Your task to perform on an android device: Open Chrome and go to settings Image 0: 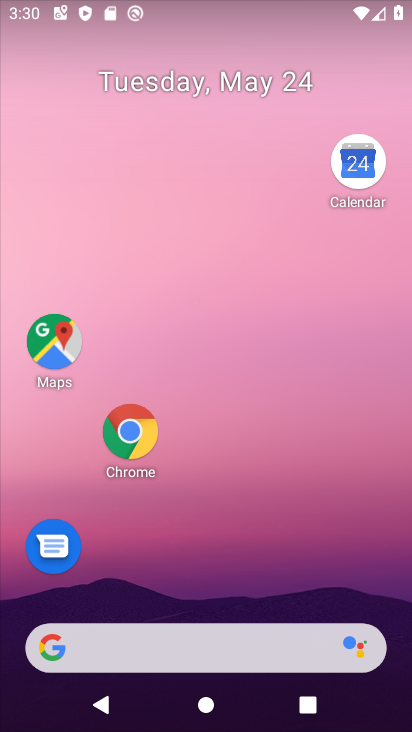
Step 0: drag from (163, 574) to (193, 152)
Your task to perform on an android device: Open Chrome and go to settings Image 1: 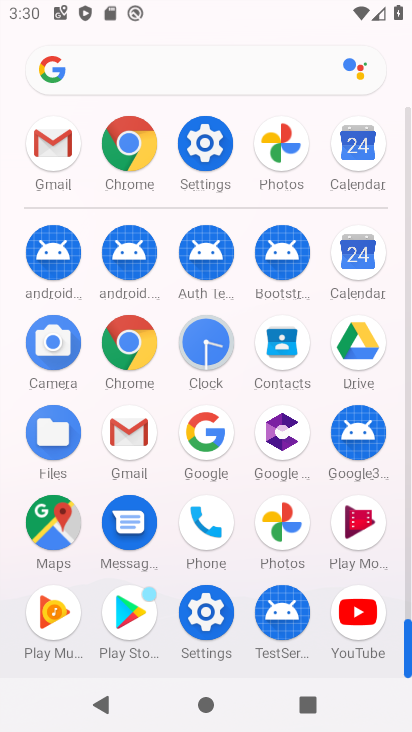
Step 1: click (207, 610)
Your task to perform on an android device: Open Chrome and go to settings Image 2: 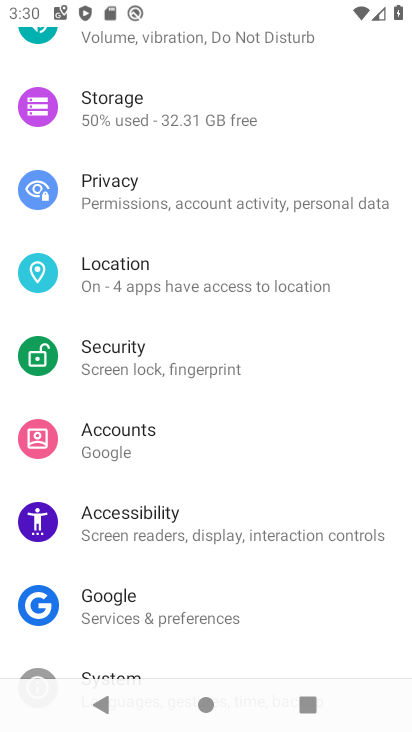
Step 2: press home button
Your task to perform on an android device: Open Chrome and go to settings Image 3: 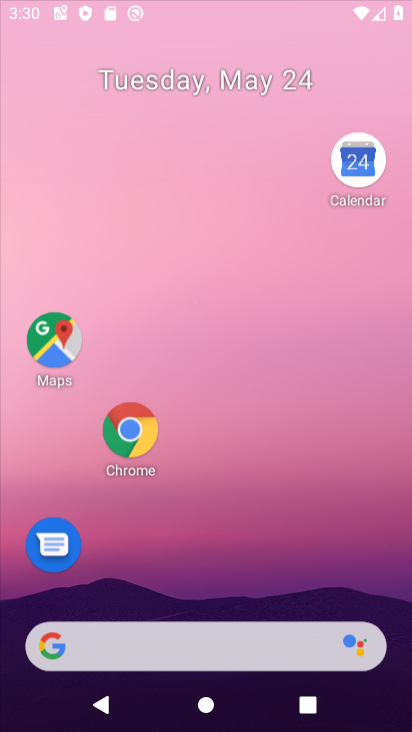
Step 3: drag from (161, 611) to (266, 194)
Your task to perform on an android device: Open Chrome and go to settings Image 4: 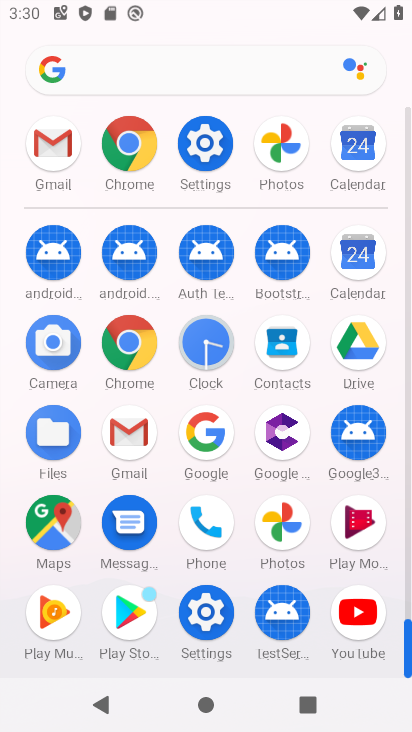
Step 4: click (131, 140)
Your task to perform on an android device: Open Chrome and go to settings Image 5: 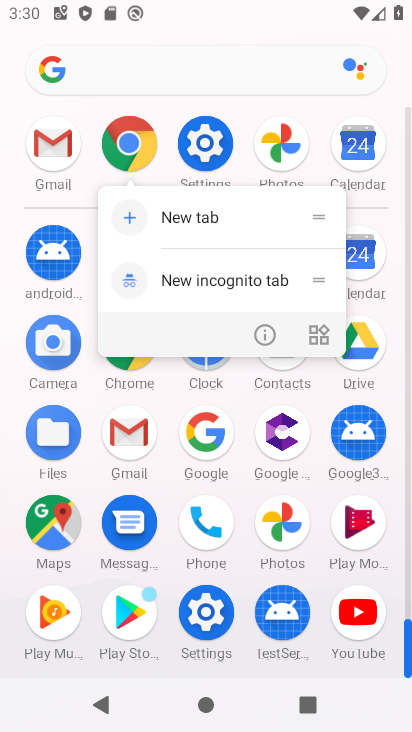
Step 5: click (265, 339)
Your task to perform on an android device: Open Chrome and go to settings Image 6: 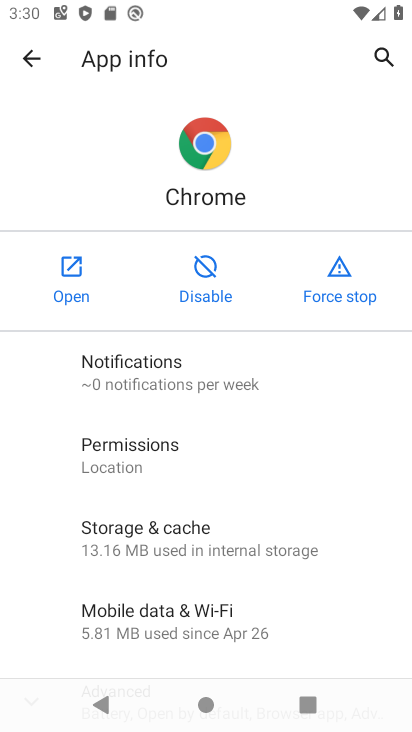
Step 6: click (65, 278)
Your task to perform on an android device: Open Chrome and go to settings Image 7: 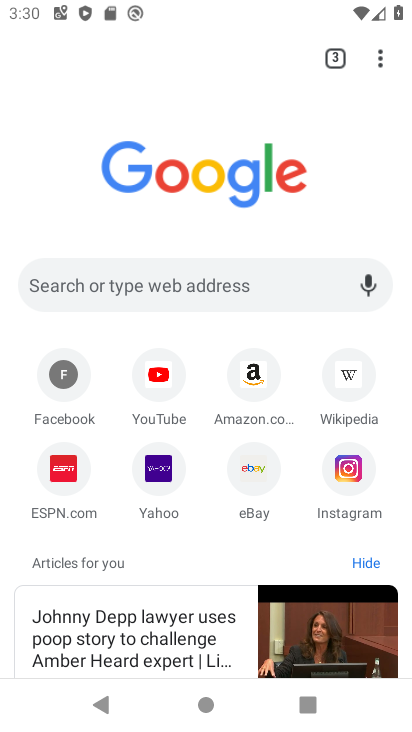
Step 7: click (382, 59)
Your task to perform on an android device: Open Chrome and go to settings Image 8: 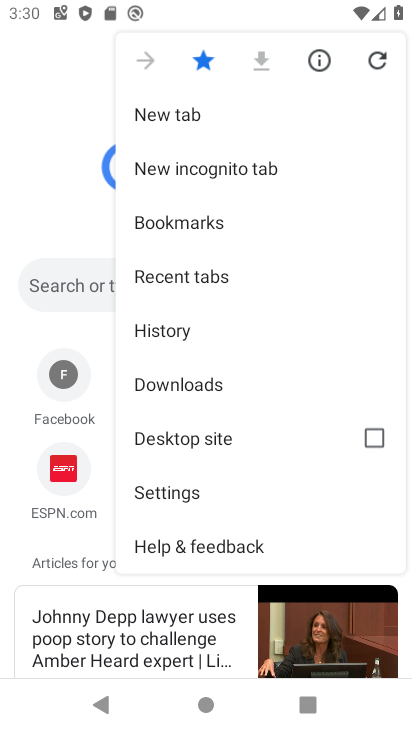
Step 8: click (171, 499)
Your task to perform on an android device: Open Chrome and go to settings Image 9: 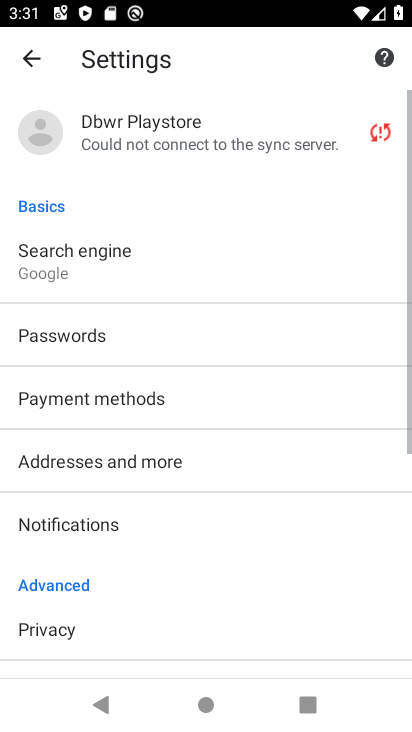
Step 9: task complete